Your task to perform on an android device: toggle sleep mode Image 0: 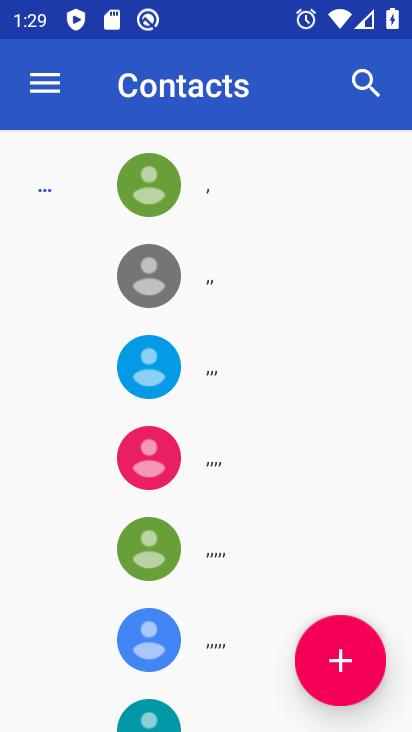
Step 0: press home button
Your task to perform on an android device: toggle sleep mode Image 1: 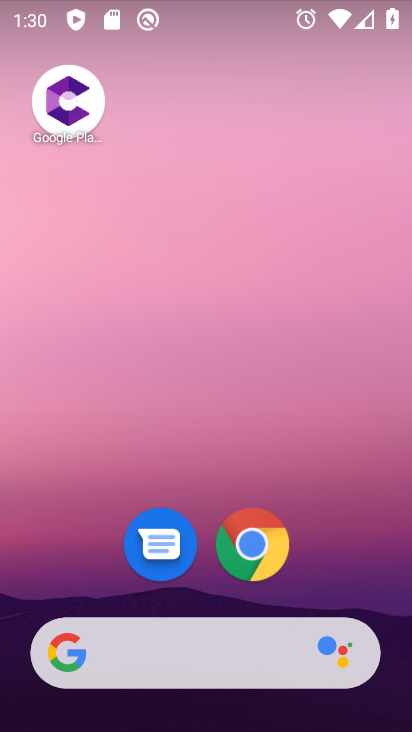
Step 1: drag from (334, 601) to (315, 39)
Your task to perform on an android device: toggle sleep mode Image 2: 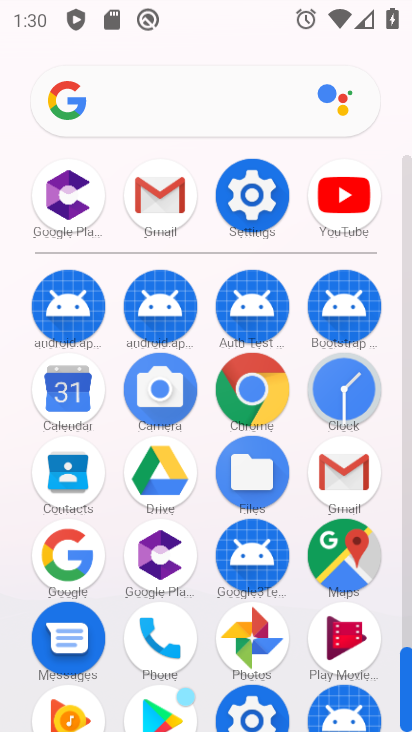
Step 2: click (248, 195)
Your task to perform on an android device: toggle sleep mode Image 3: 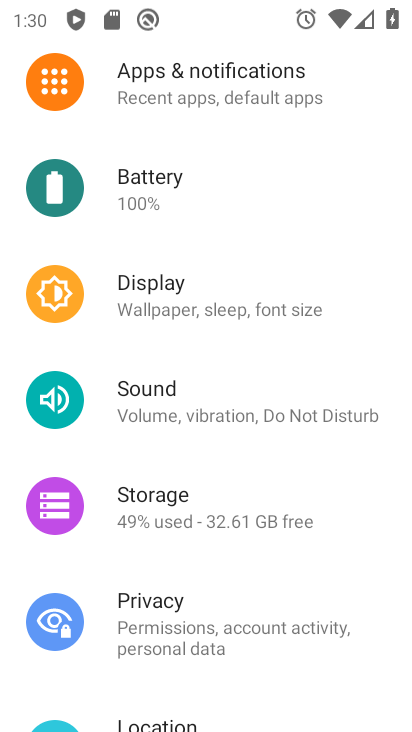
Step 3: drag from (184, 235) to (236, 446)
Your task to perform on an android device: toggle sleep mode Image 4: 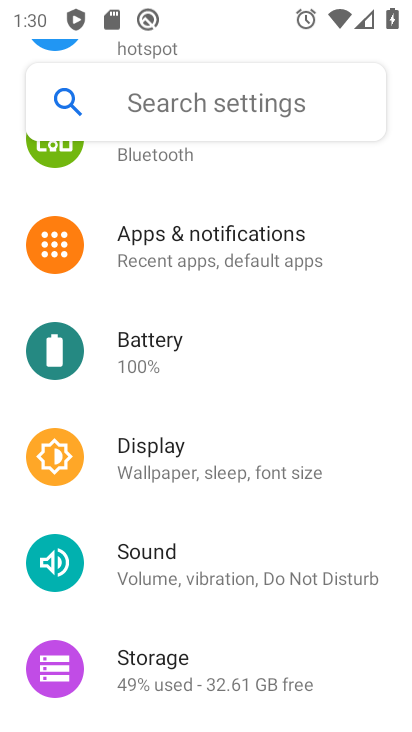
Step 4: drag from (249, 276) to (276, 480)
Your task to perform on an android device: toggle sleep mode Image 5: 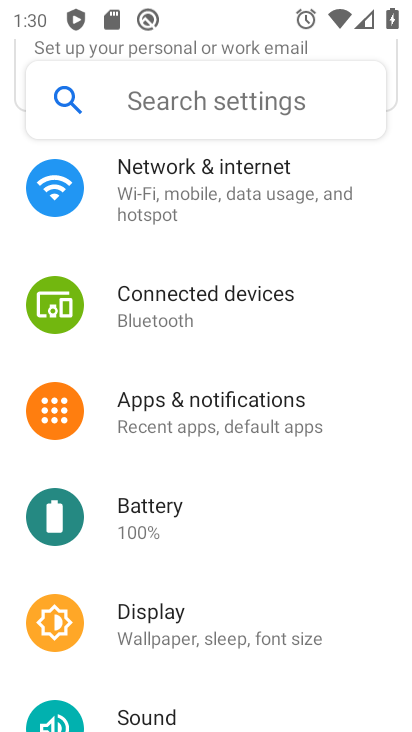
Step 5: drag from (223, 287) to (254, 216)
Your task to perform on an android device: toggle sleep mode Image 6: 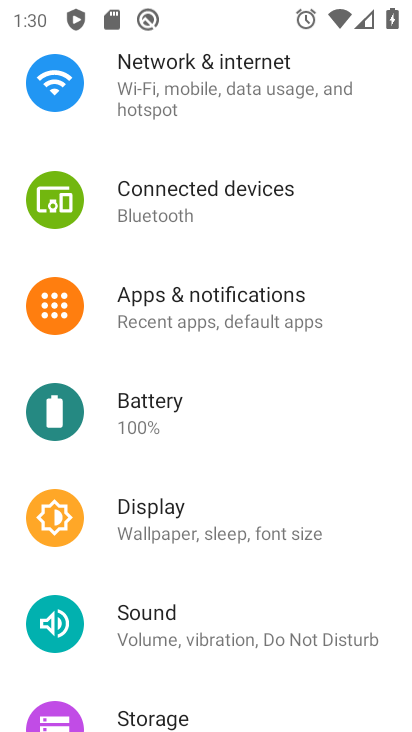
Step 6: click (164, 515)
Your task to perform on an android device: toggle sleep mode Image 7: 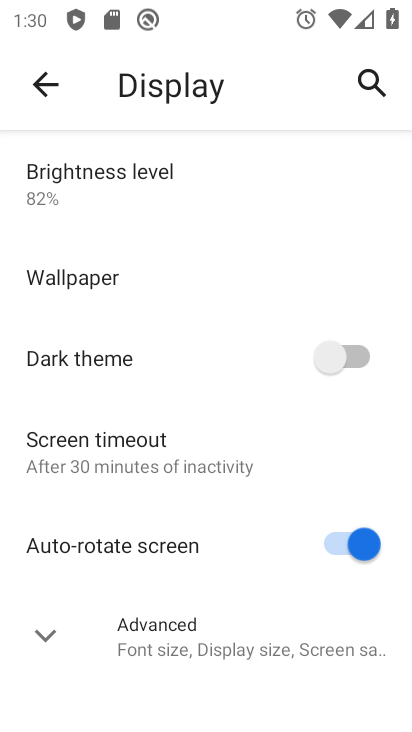
Step 7: click (185, 640)
Your task to perform on an android device: toggle sleep mode Image 8: 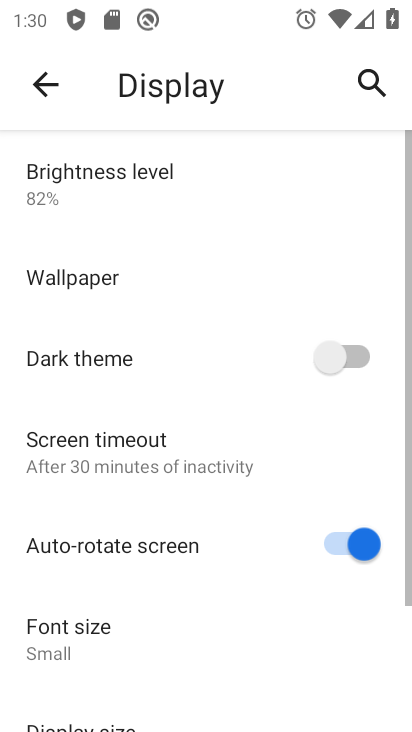
Step 8: task complete